Your task to perform on an android device: turn on sleep mode Image 0: 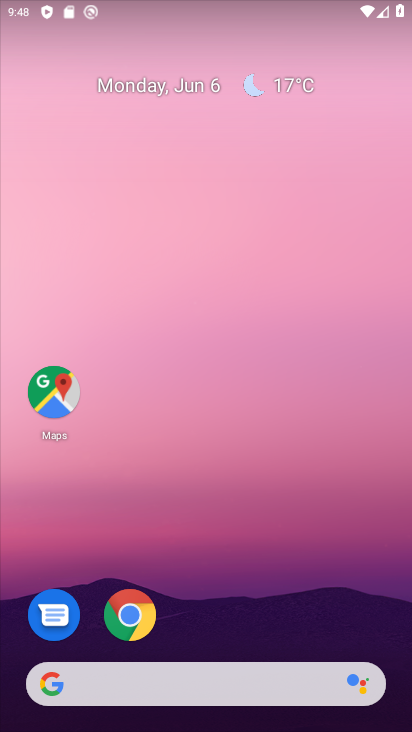
Step 0: drag from (220, 627) to (221, 74)
Your task to perform on an android device: turn on sleep mode Image 1: 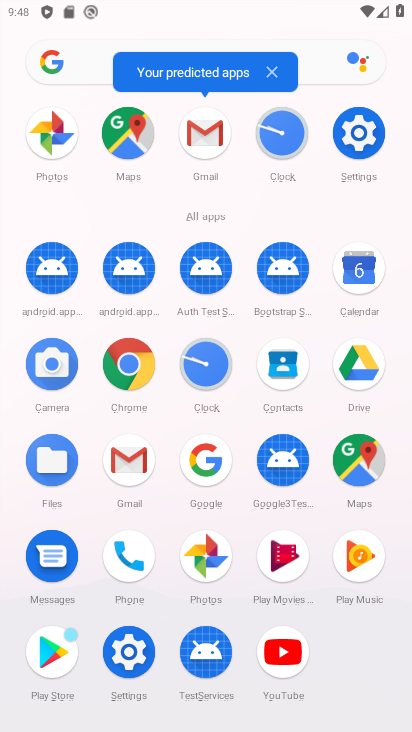
Step 1: click (360, 130)
Your task to perform on an android device: turn on sleep mode Image 2: 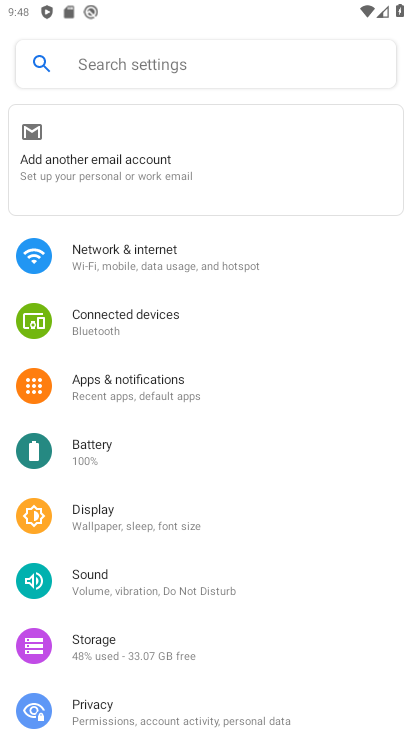
Step 2: click (125, 511)
Your task to perform on an android device: turn on sleep mode Image 3: 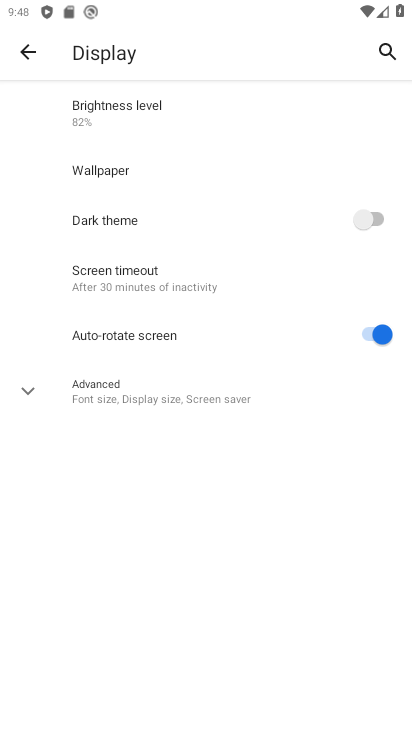
Step 3: click (25, 376)
Your task to perform on an android device: turn on sleep mode Image 4: 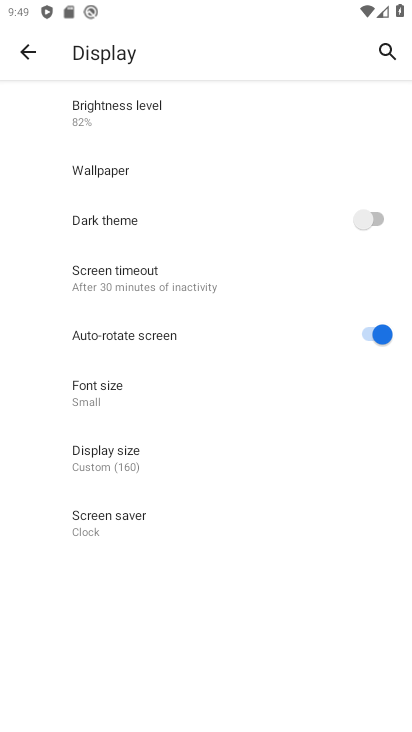
Step 4: task complete